Your task to perform on an android device: What's the weather today? Image 0: 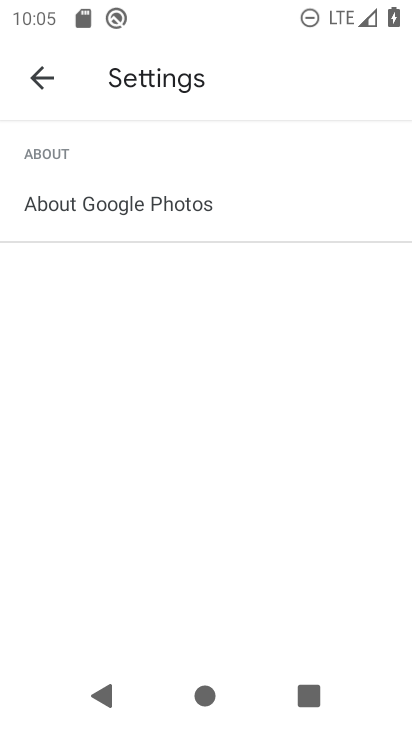
Step 0: press home button
Your task to perform on an android device: What's the weather today? Image 1: 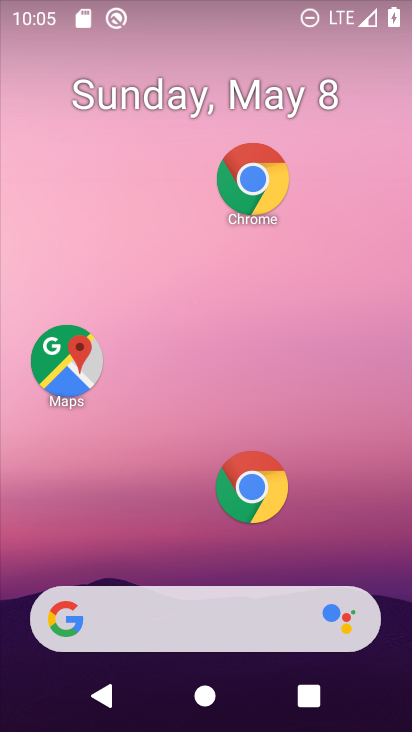
Step 1: click (64, 617)
Your task to perform on an android device: What's the weather today? Image 2: 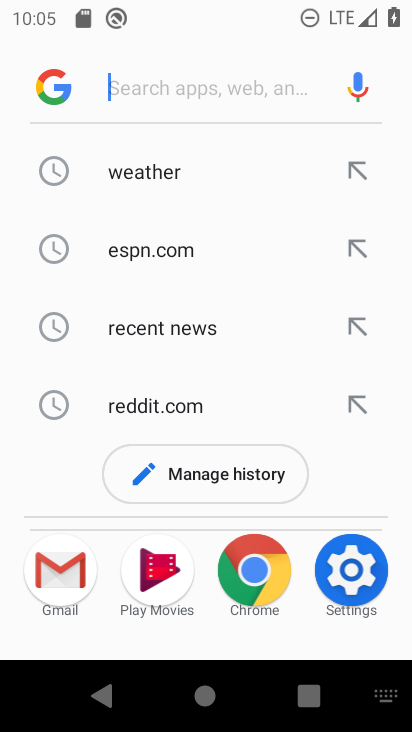
Step 2: click (350, 162)
Your task to perform on an android device: What's the weather today? Image 3: 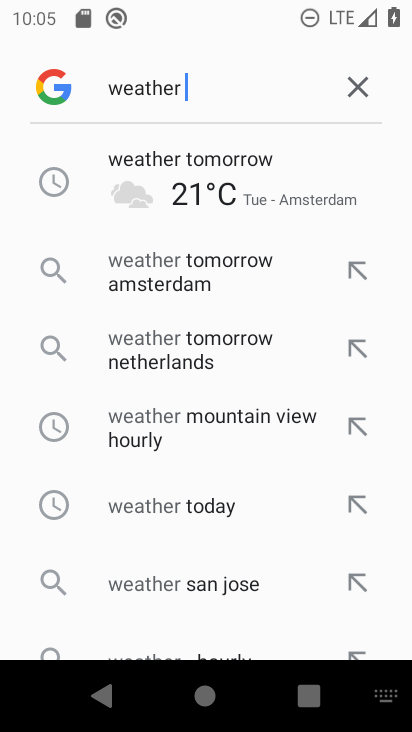
Step 3: click (357, 73)
Your task to perform on an android device: What's the weather today? Image 4: 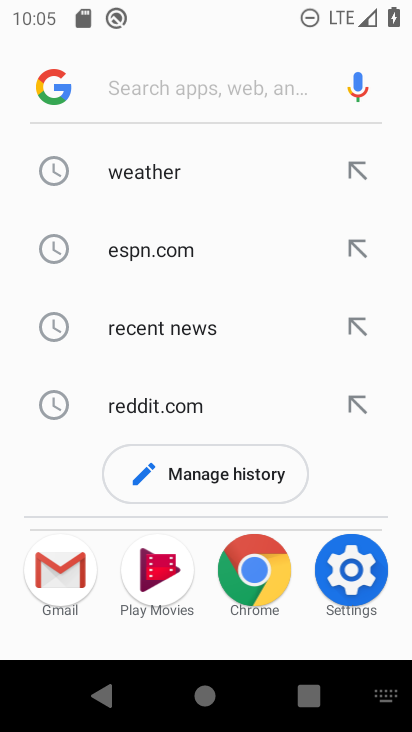
Step 4: click (152, 172)
Your task to perform on an android device: What's the weather today? Image 5: 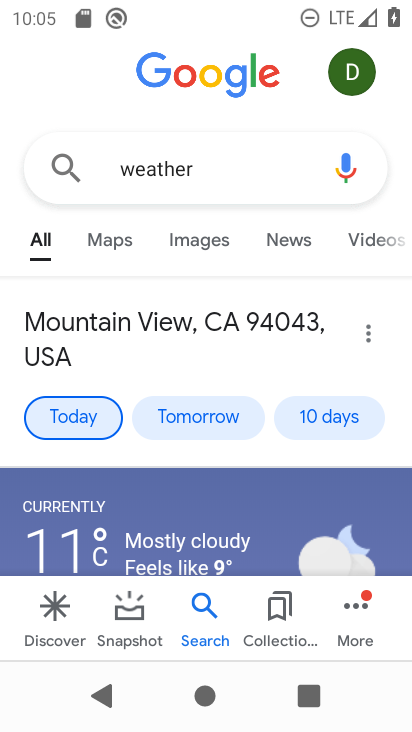
Step 5: click (70, 407)
Your task to perform on an android device: What's the weather today? Image 6: 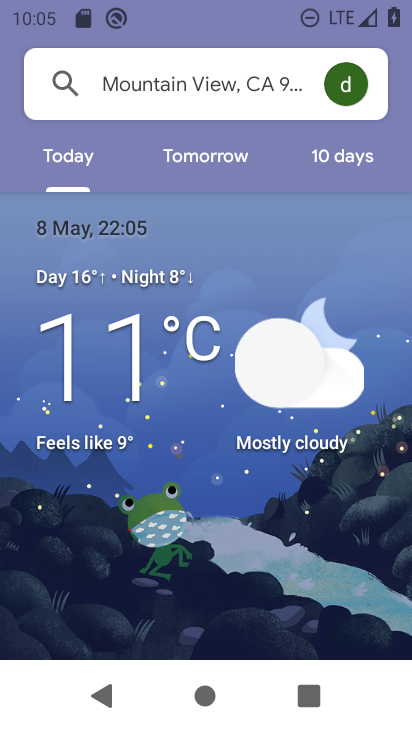
Step 6: task complete